Your task to perform on an android device: Open Chrome and go to the settings page Image 0: 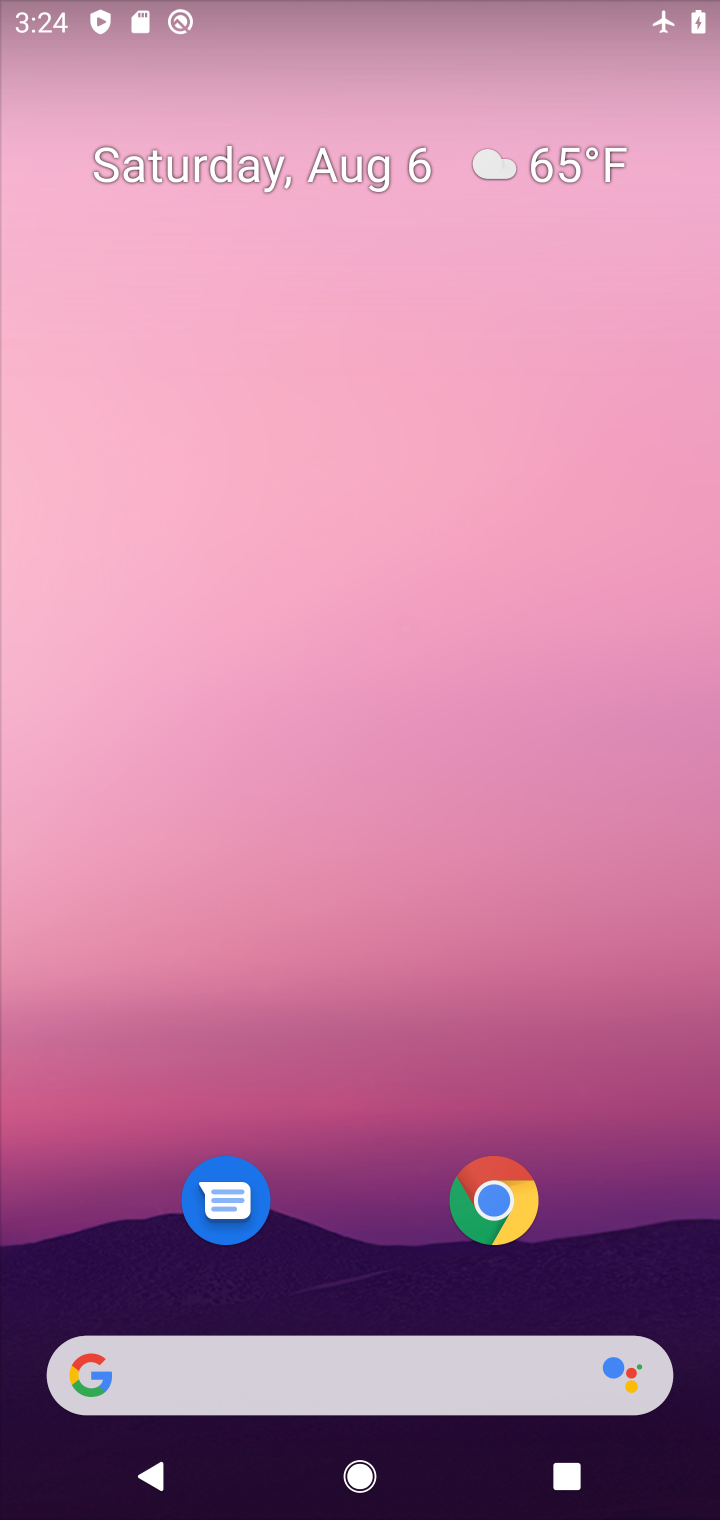
Step 0: click (484, 1218)
Your task to perform on an android device: Open Chrome and go to the settings page Image 1: 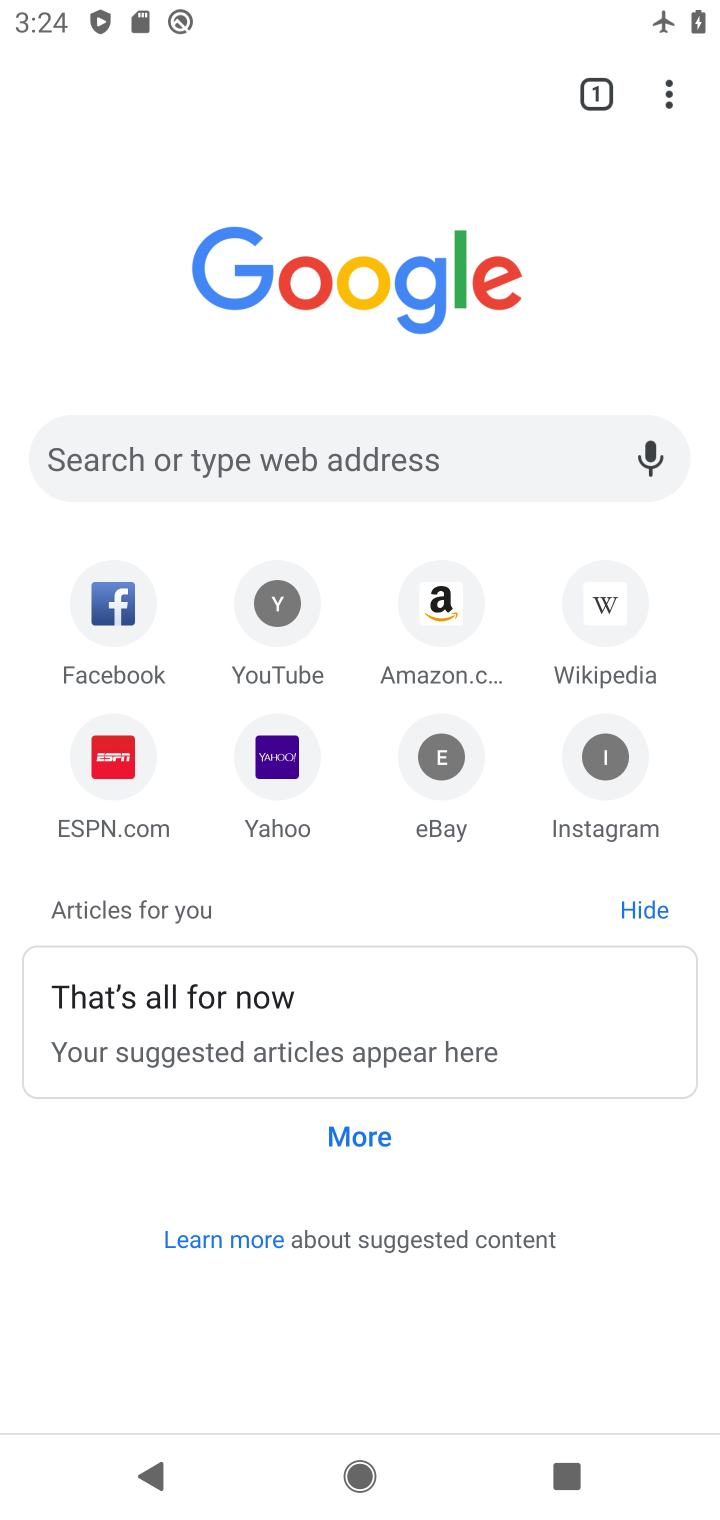
Step 1: press home button
Your task to perform on an android device: Open Chrome and go to the settings page Image 2: 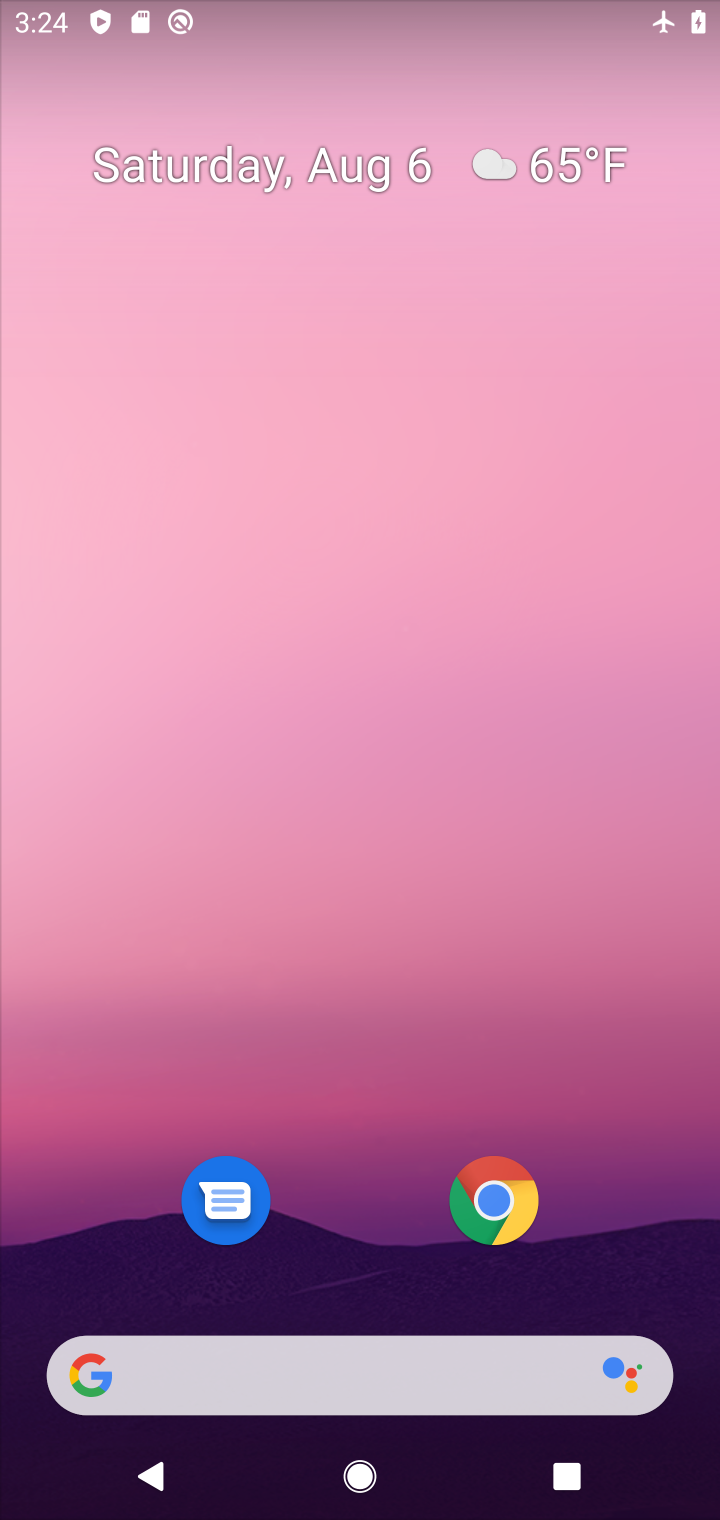
Step 2: drag from (311, 1338) to (193, 50)
Your task to perform on an android device: Open Chrome and go to the settings page Image 3: 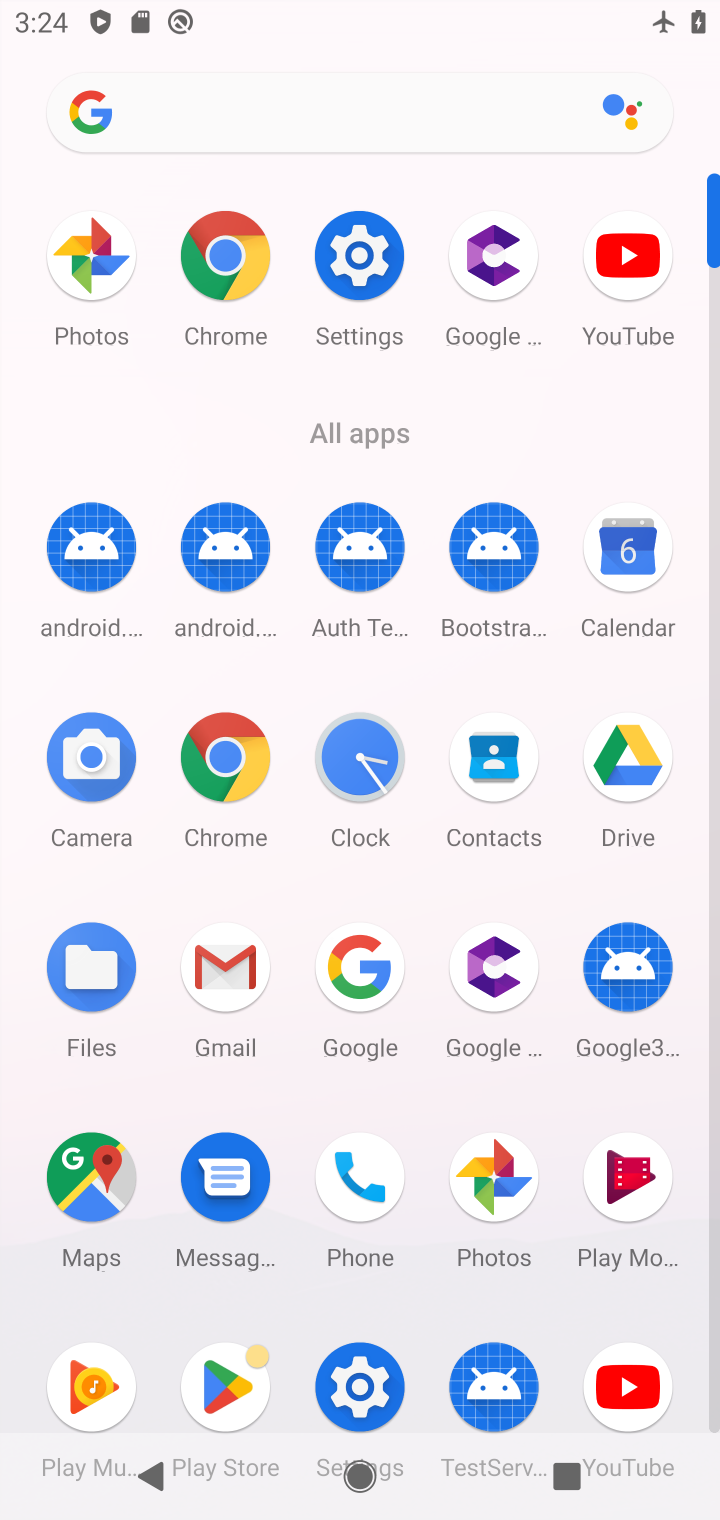
Step 3: click (208, 780)
Your task to perform on an android device: Open Chrome and go to the settings page Image 4: 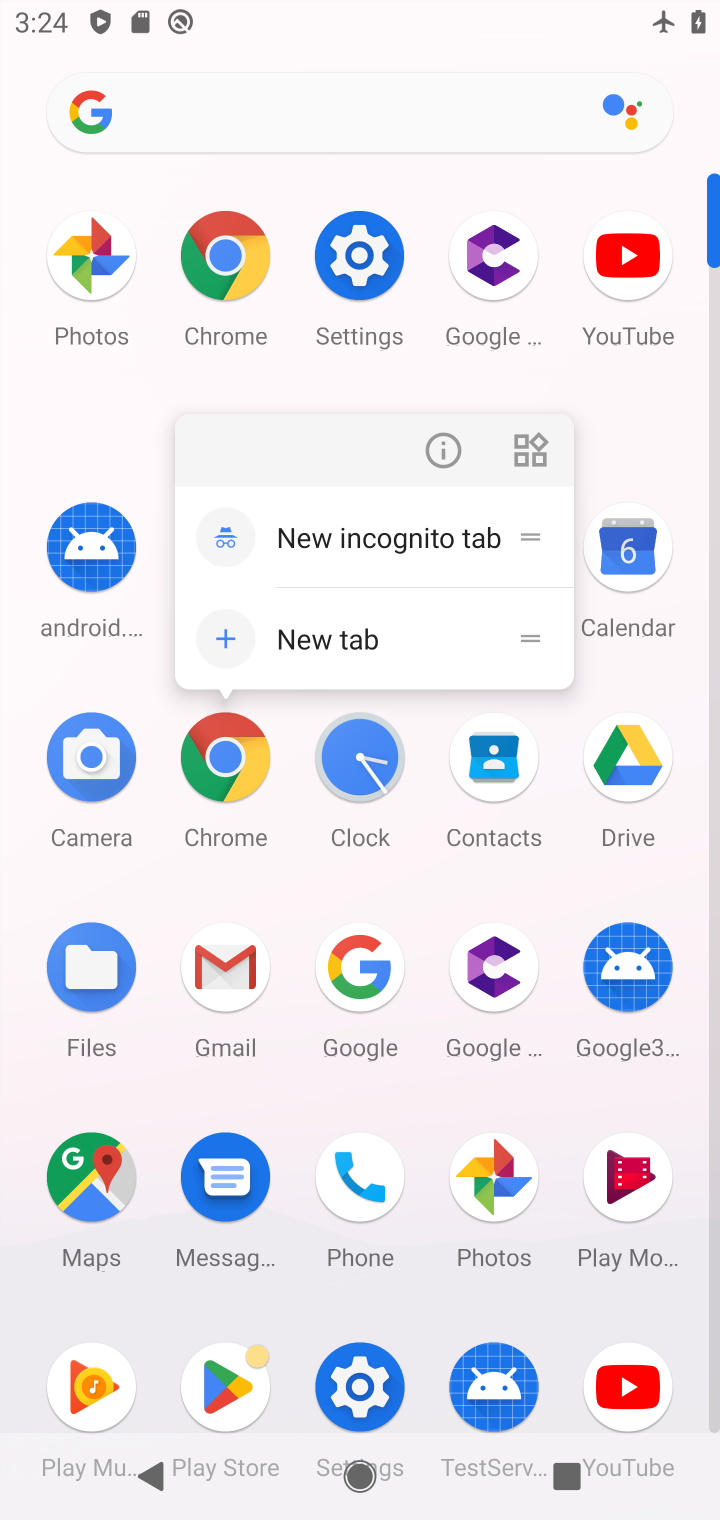
Step 4: click (224, 745)
Your task to perform on an android device: Open Chrome and go to the settings page Image 5: 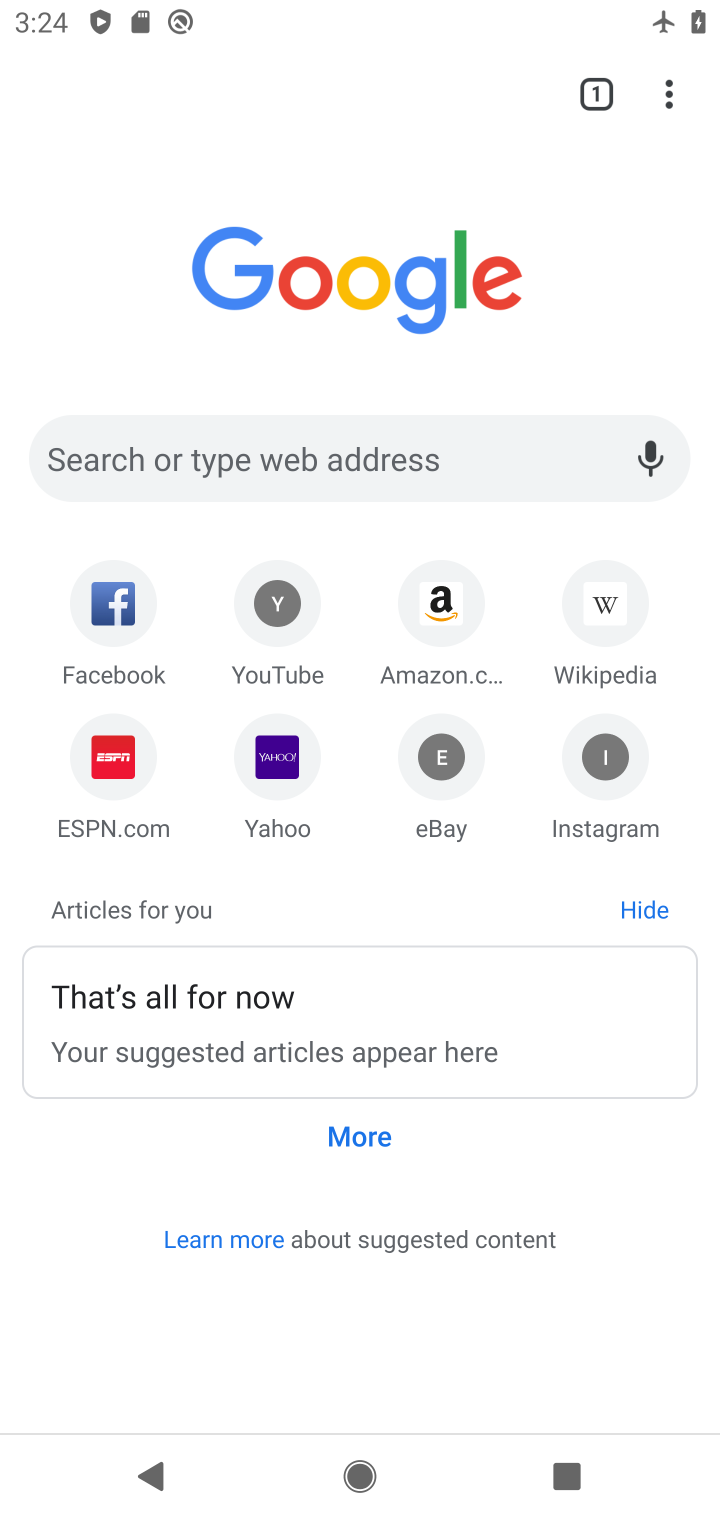
Step 5: click (665, 77)
Your task to perform on an android device: Open Chrome and go to the settings page Image 6: 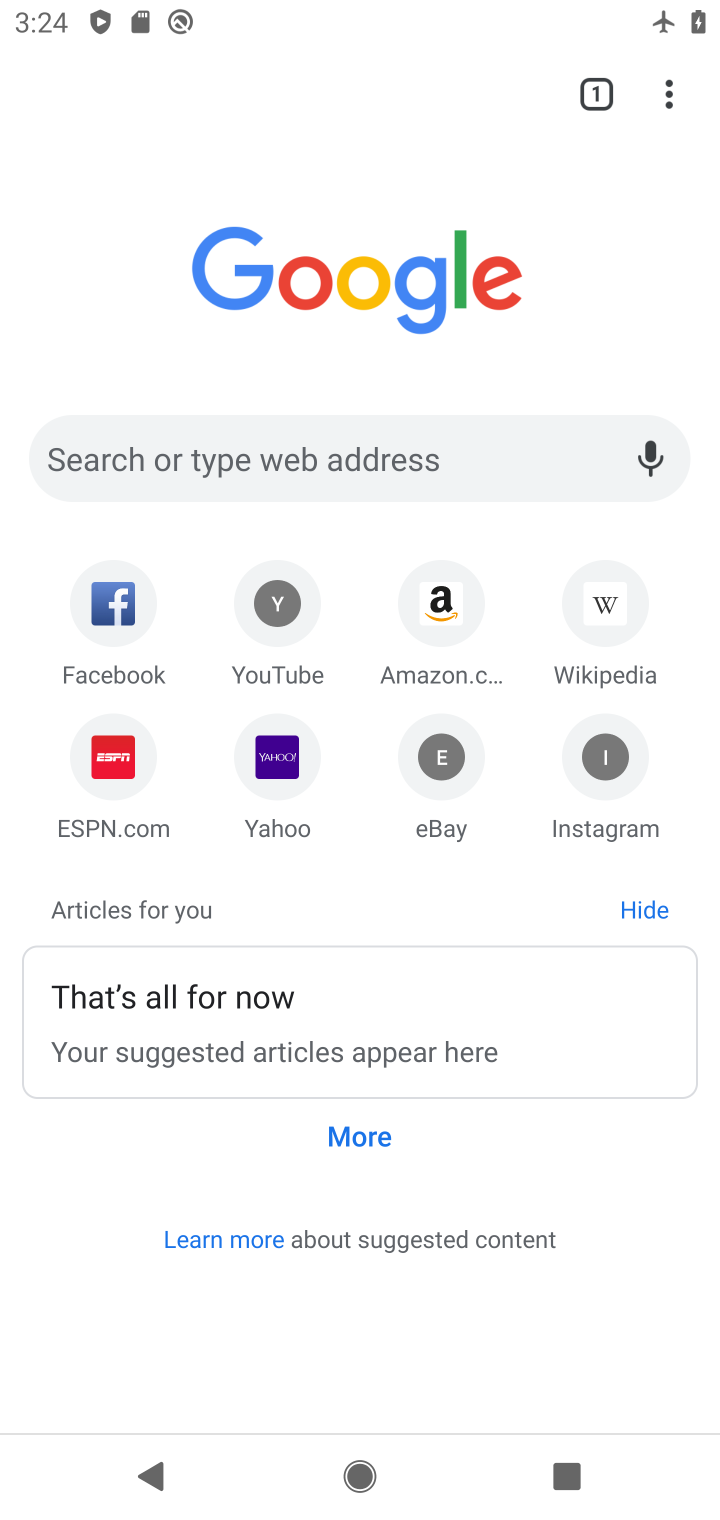
Step 6: click (689, 108)
Your task to perform on an android device: Open Chrome and go to the settings page Image 7: 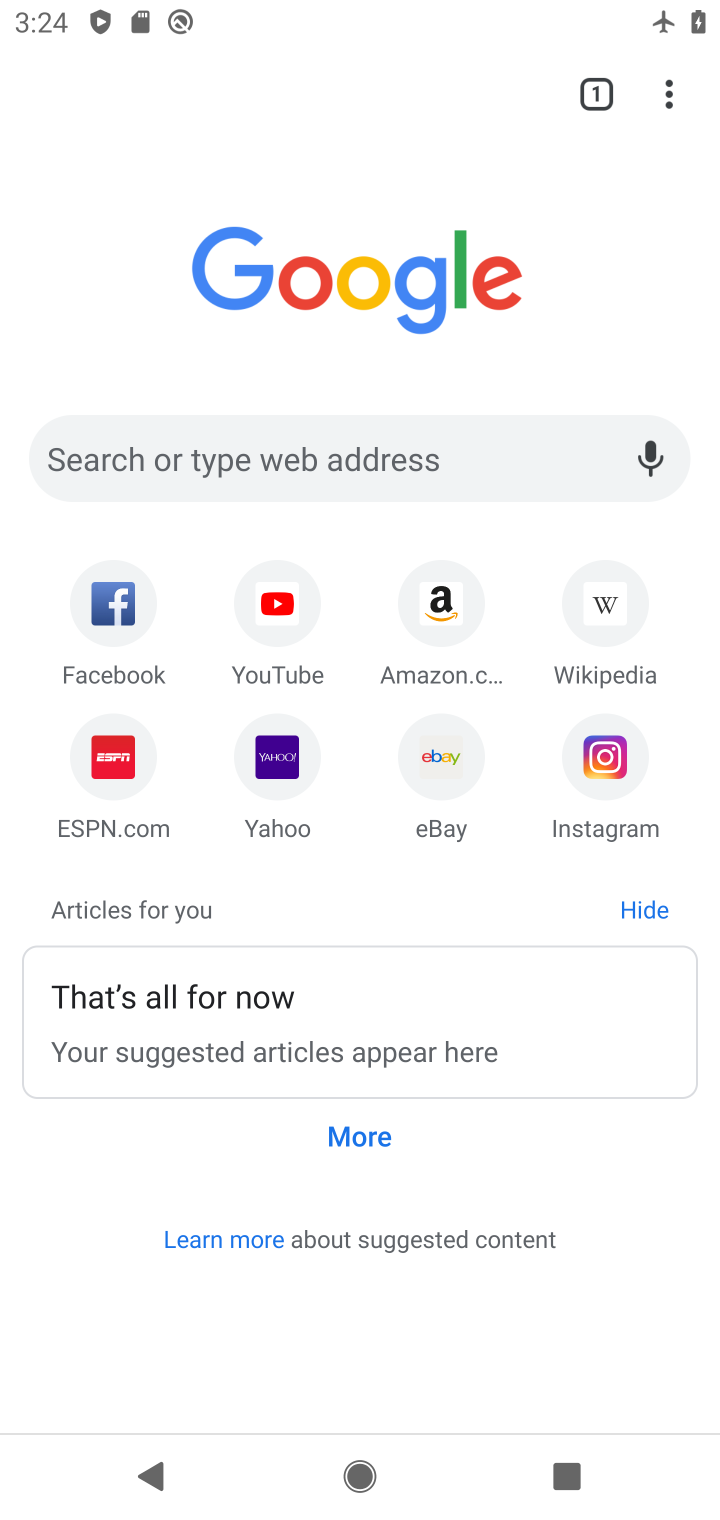
Step 7: click (670, 96)
Your task to perform on an android device: Open Chrome and go to the settings page Image 8: 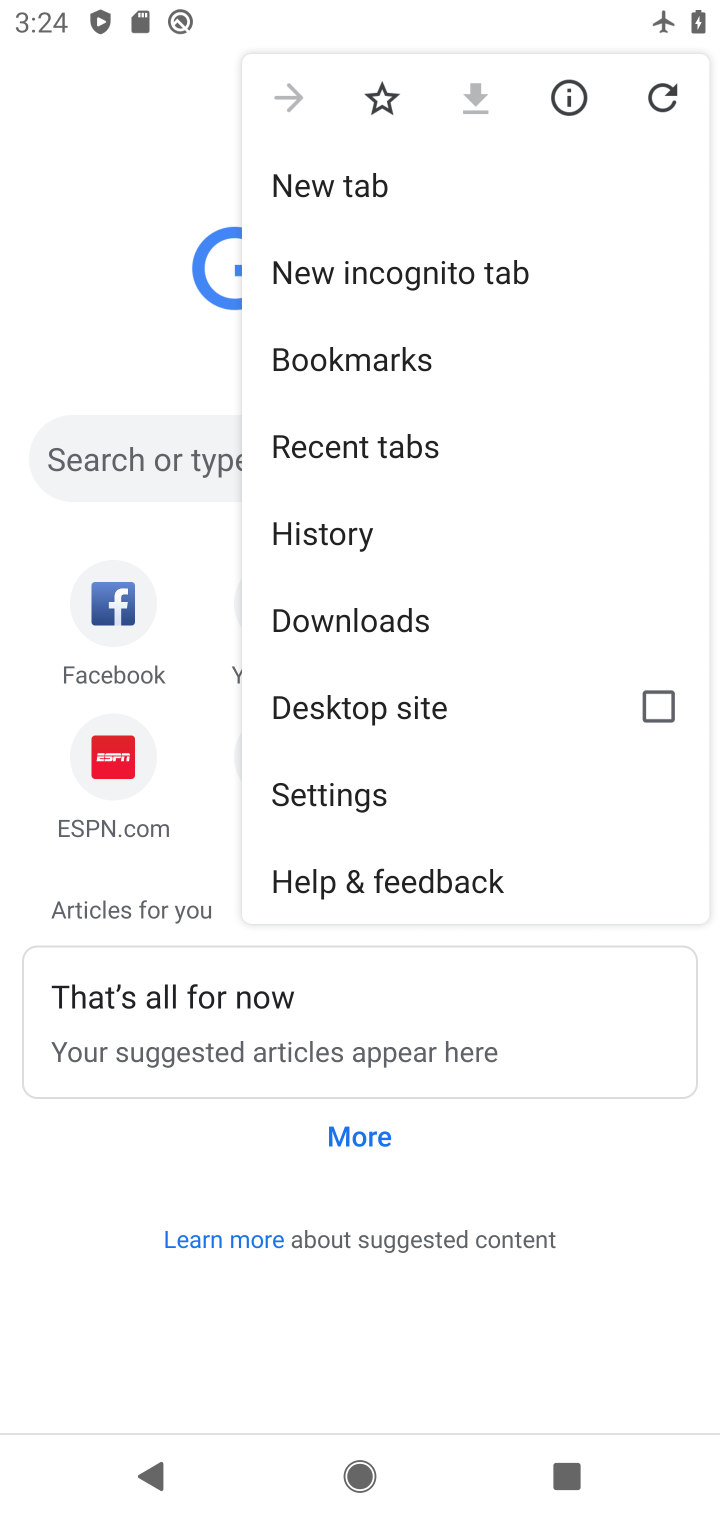
Step 8: click (670, 96)
Your task to perform on an android device: Open Chrome and go to the settings page Image 9: 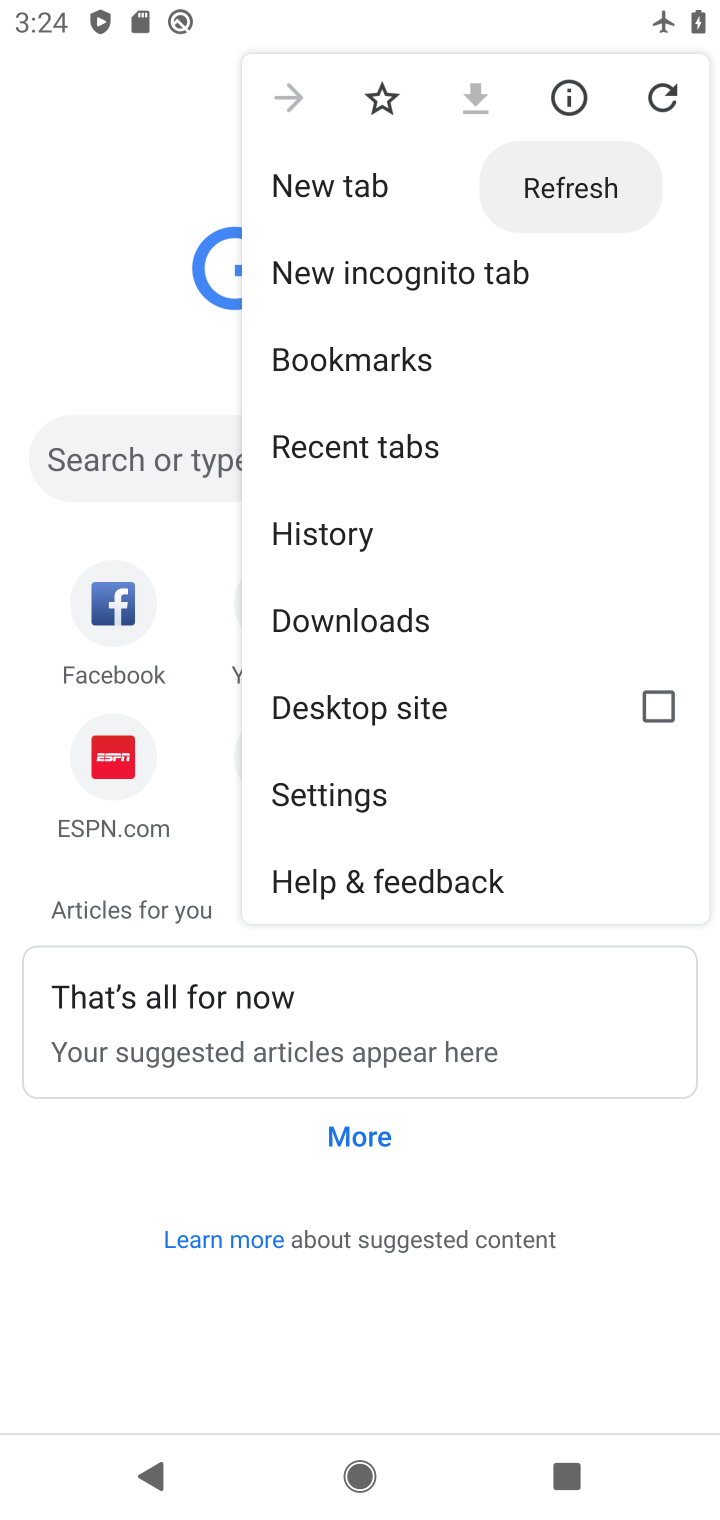
Step 9: click (670, 96)
Your task to perform on an android device: Open Chrome and go to the settings page Image 10: 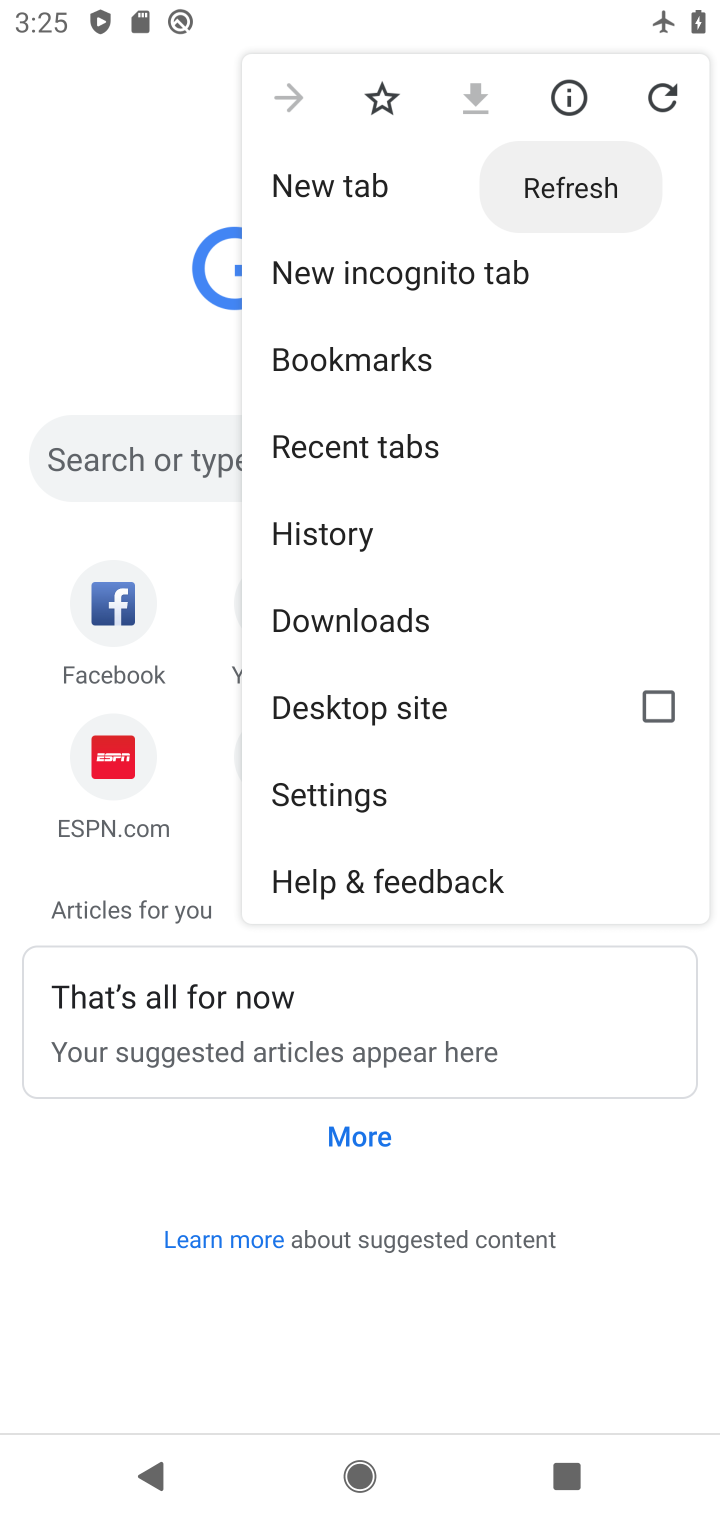
Step 10: click (296, 767)
Your task to perform on an android device: Open Chrome and go to the settings page Image 11: 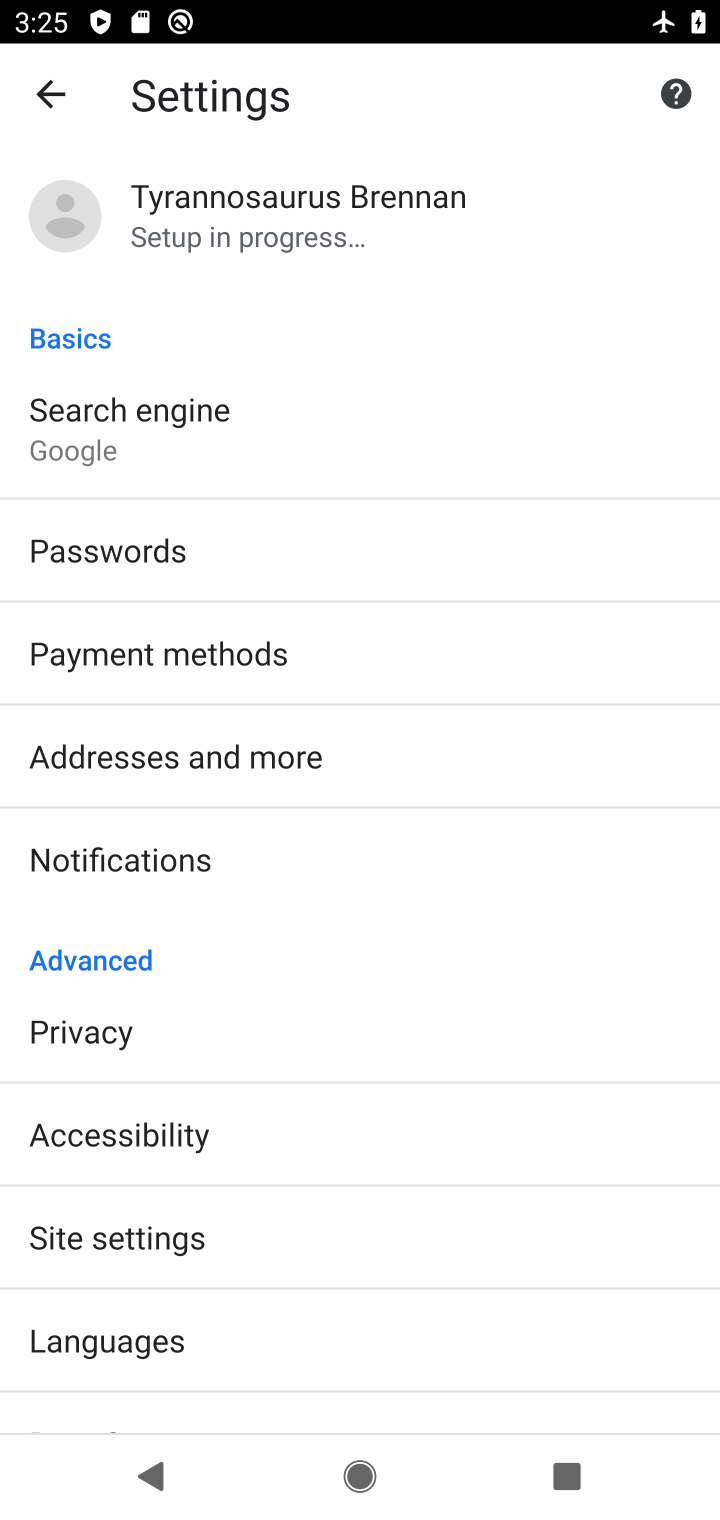
Step 11: task complete